Your task to perform on an android device: allow notifications from all sites in the chrome app Image 0: 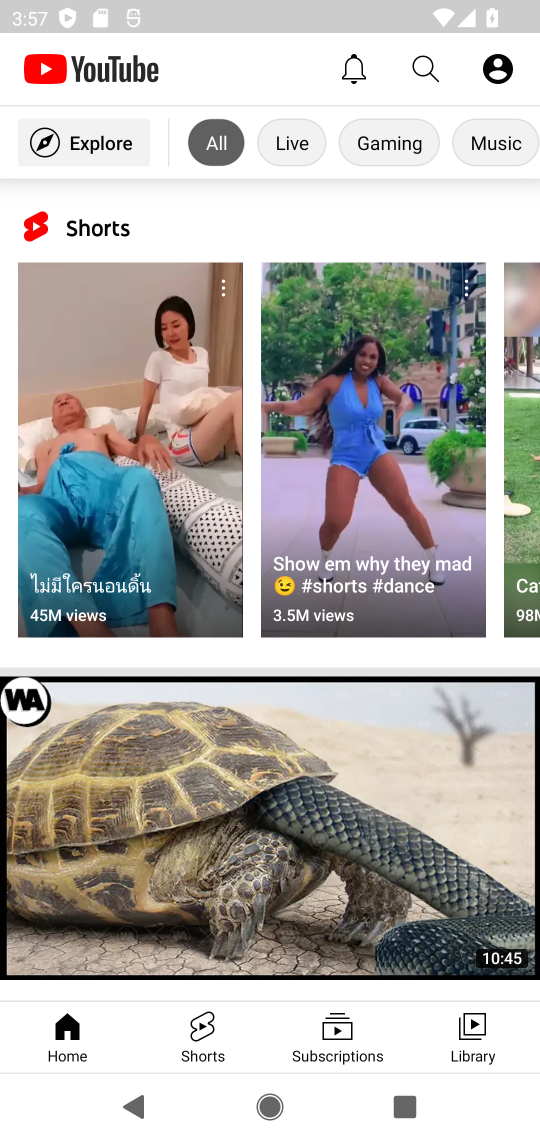
Step 0: press home button
Your task to perform on an android device: allow notifications from all sites in the chrome app Image 1: 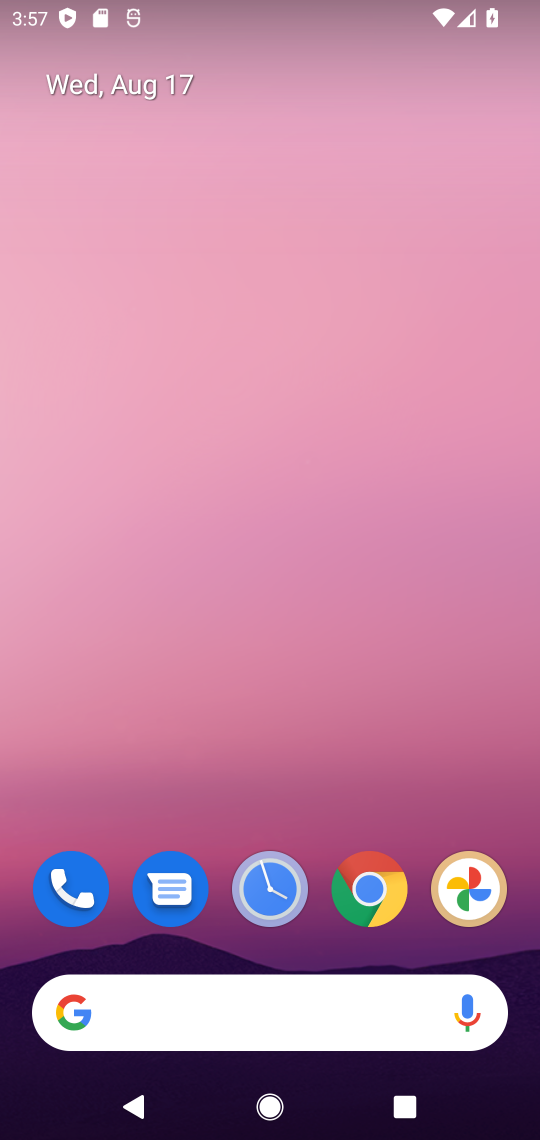
Step 1: click (366, 885)
Your task to perform on an android device: allow notifications from all sites in the chrome app Image 2: 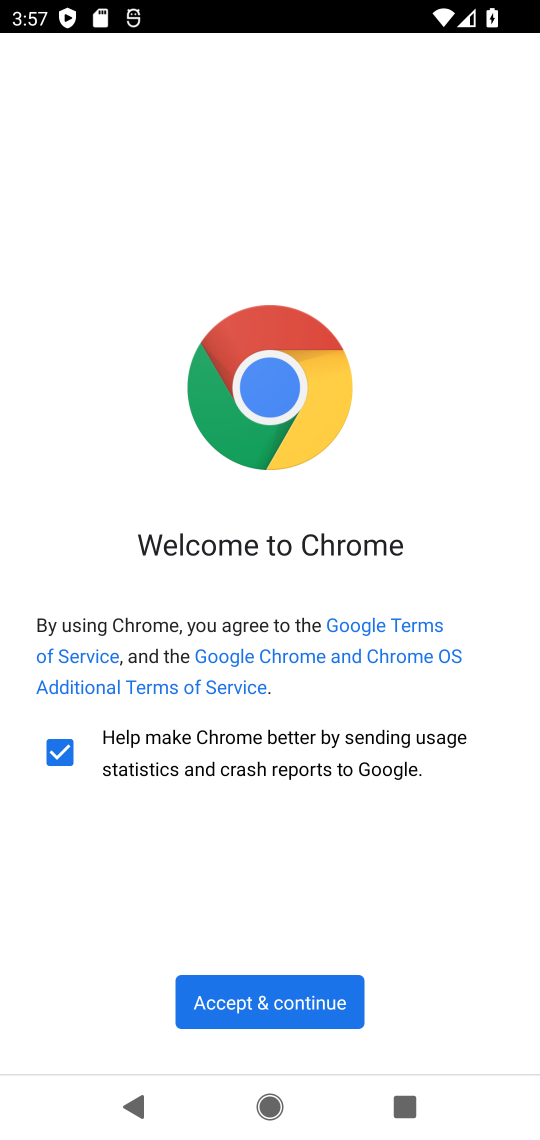
Step 2: click (296, 1003)
Your task to perform on an android device: allow notifications from all sites in the chrome app Image 3: 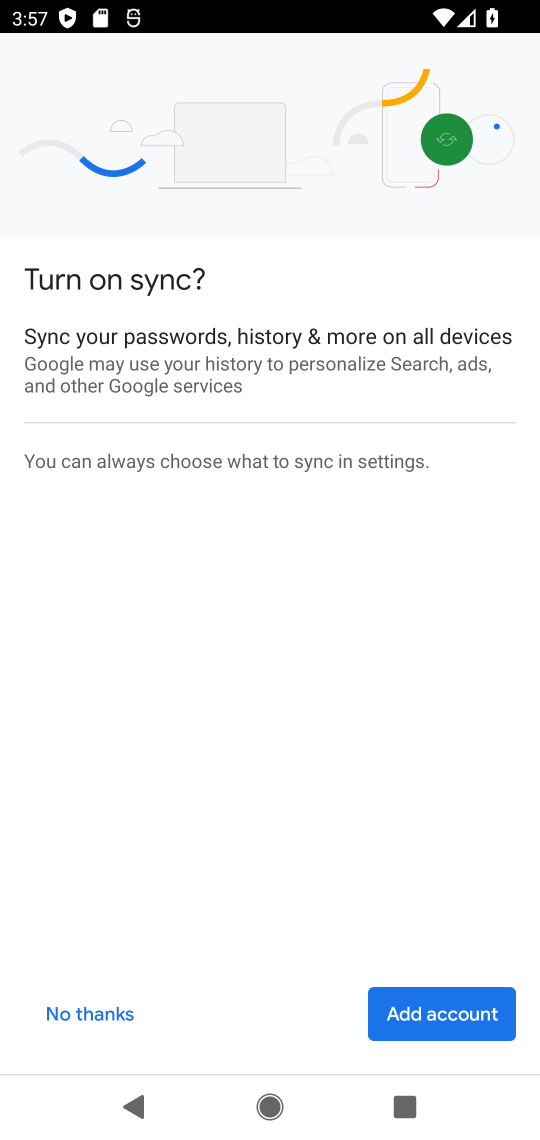
Step 3: click (97, 1006)
Your task to perform on an android device: allow notifications from all sites in the chrome app Image 4: 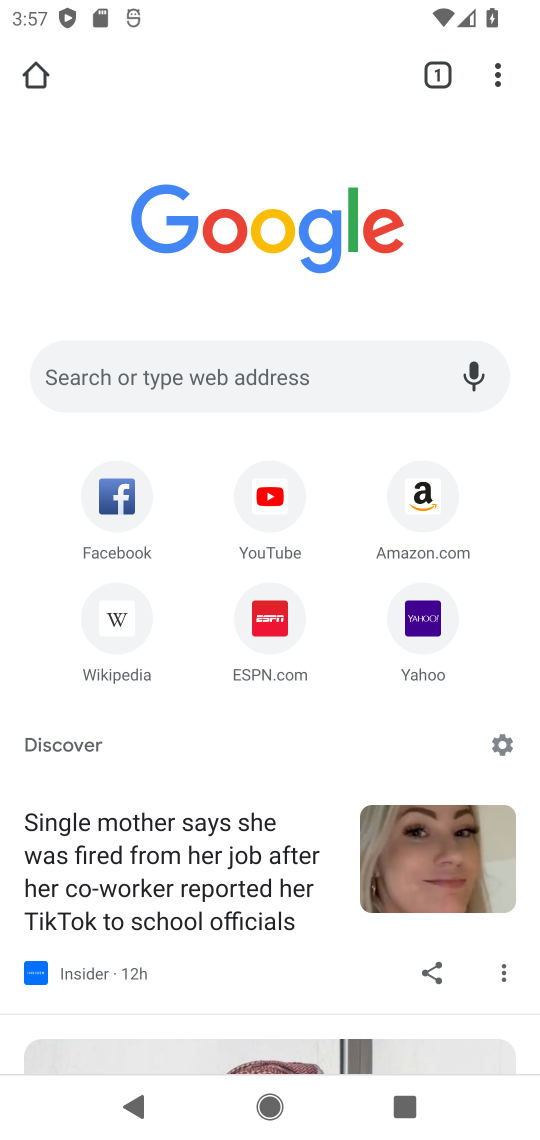
Step 4: click (498, 80)
Your task to perform on an android device: allow notifications from all sites in the chrome app Image 5: 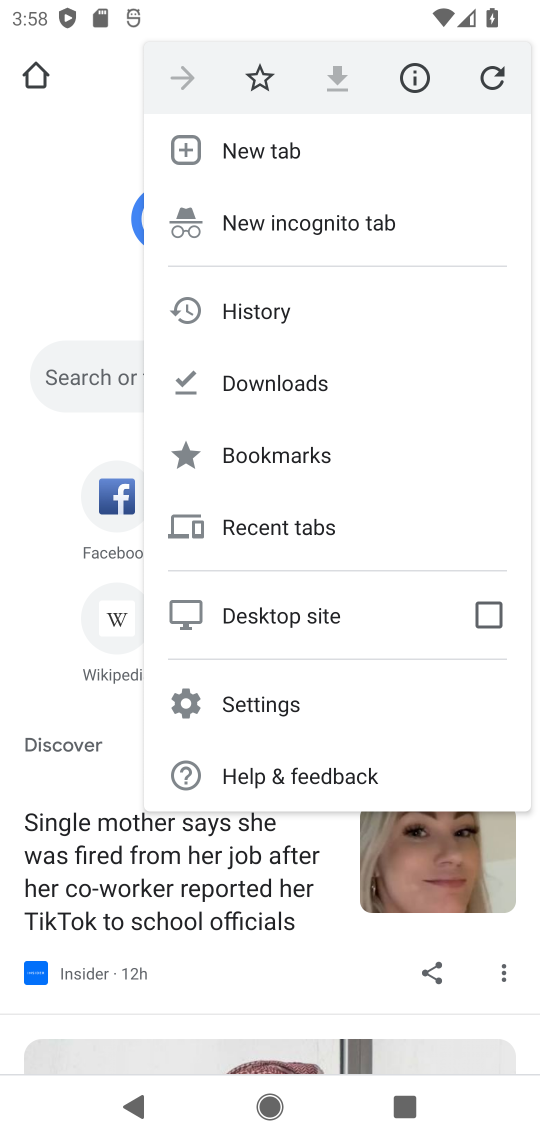
Step 5: click (256, 692)
Your task to perform on an android device: allow notifications from all sites in the chrome app Image 6: 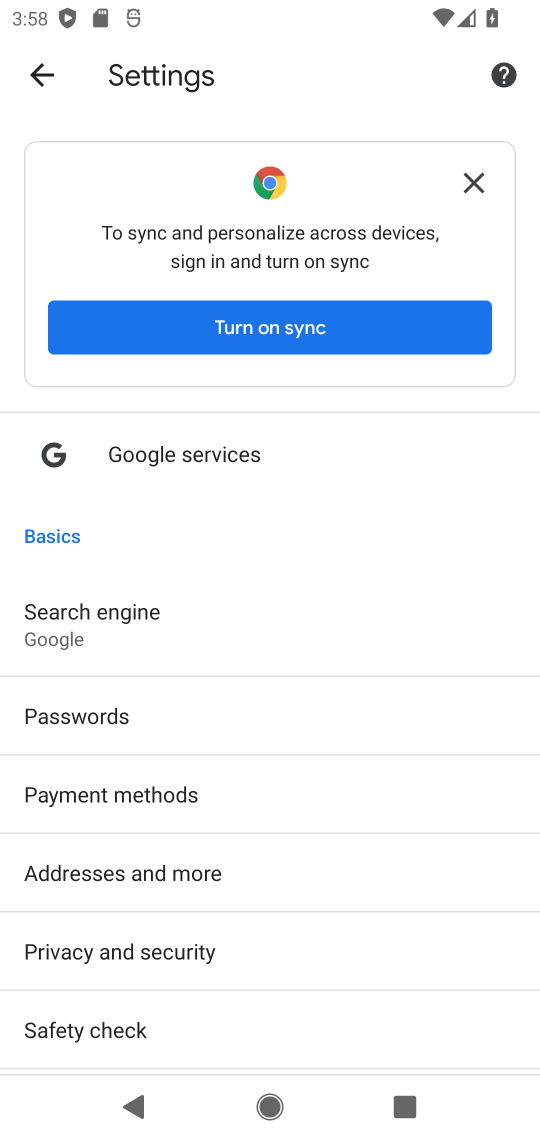
Step 6: drag from (301, 933) to (277, 688)
Your task to perform on an android device: allow notifications from all sites in the chrome app Image 7: 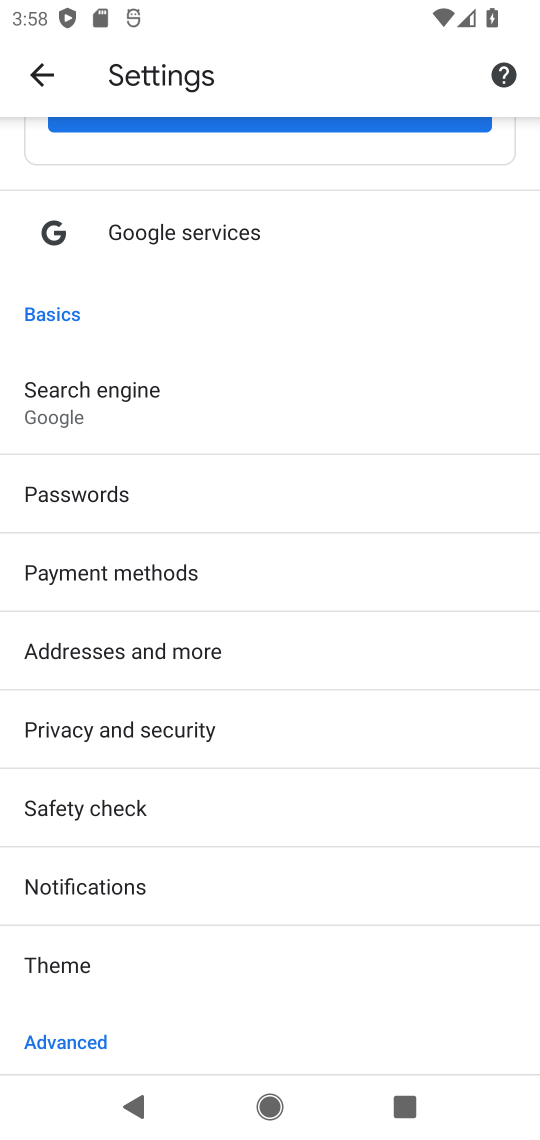
Step 7: click (99, 886)
Your task to perform on an android device: allow notifications from all sites in the chrome app Image 8: 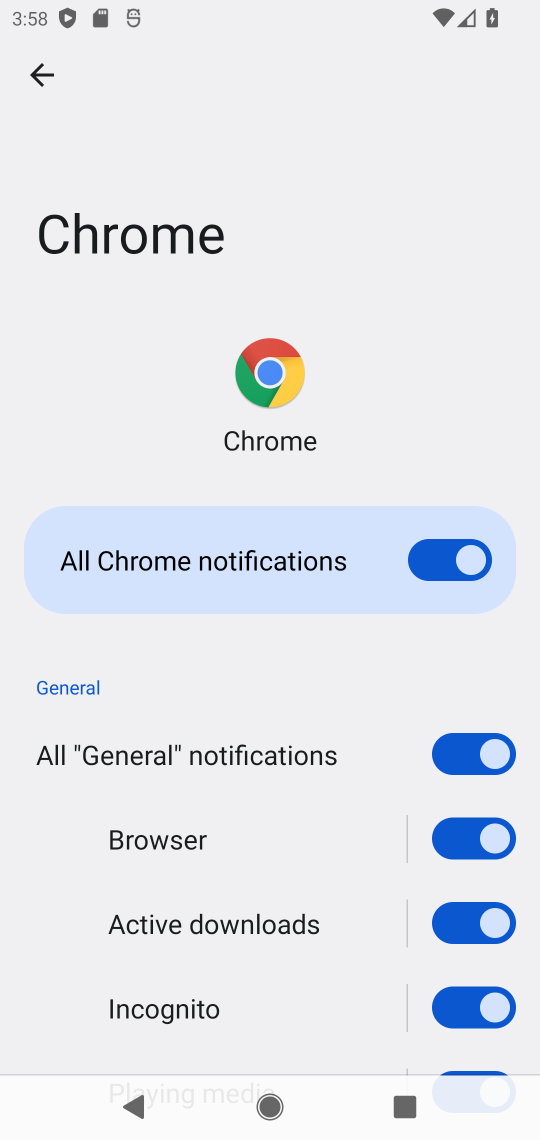
Step 8: task complete